Your task to perform on an android device: Search for bose quietcomfort 35 on target, select the first entry, add it to the cart, then select checkout. Image 0: 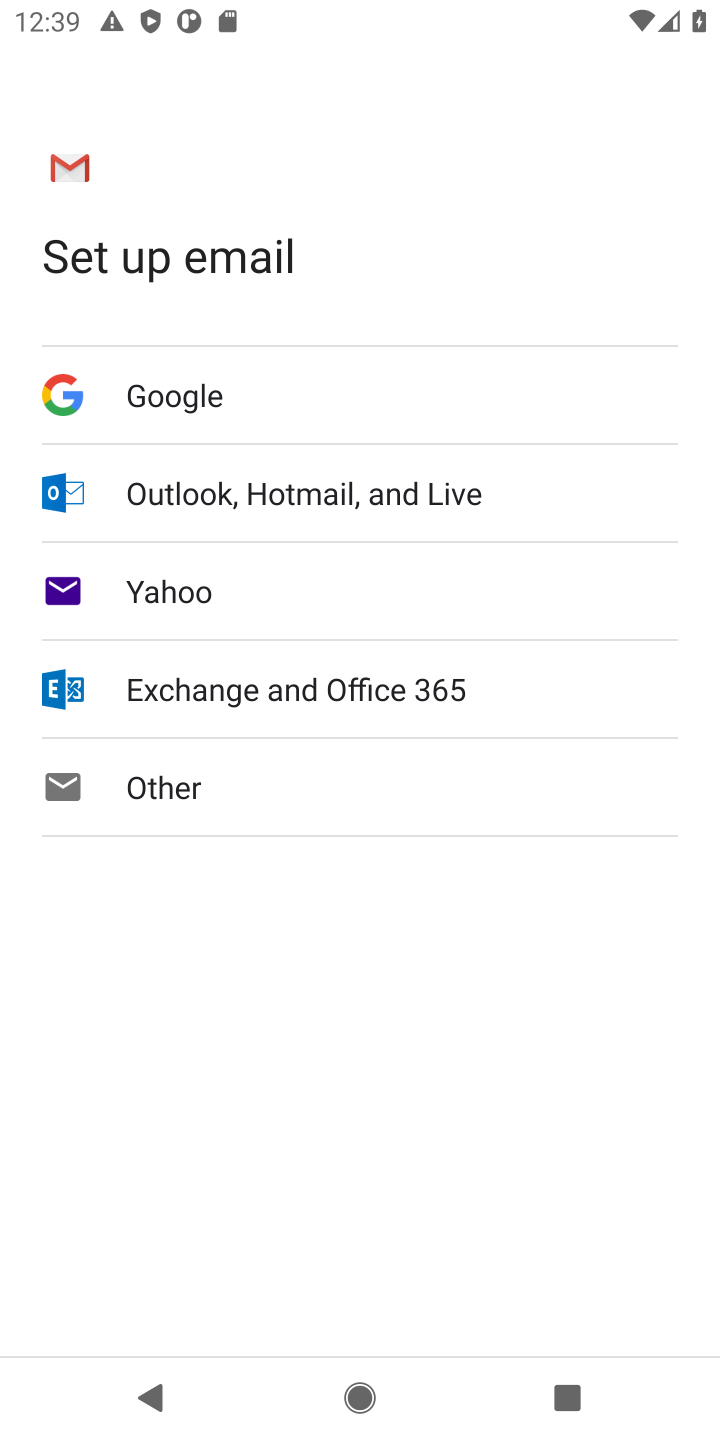
Step 0: press home button
Your task to perform on an android device: Search for bose quietcomfort 35 on target, select the first entry, add it to the cart, then select checkout. Image 1: 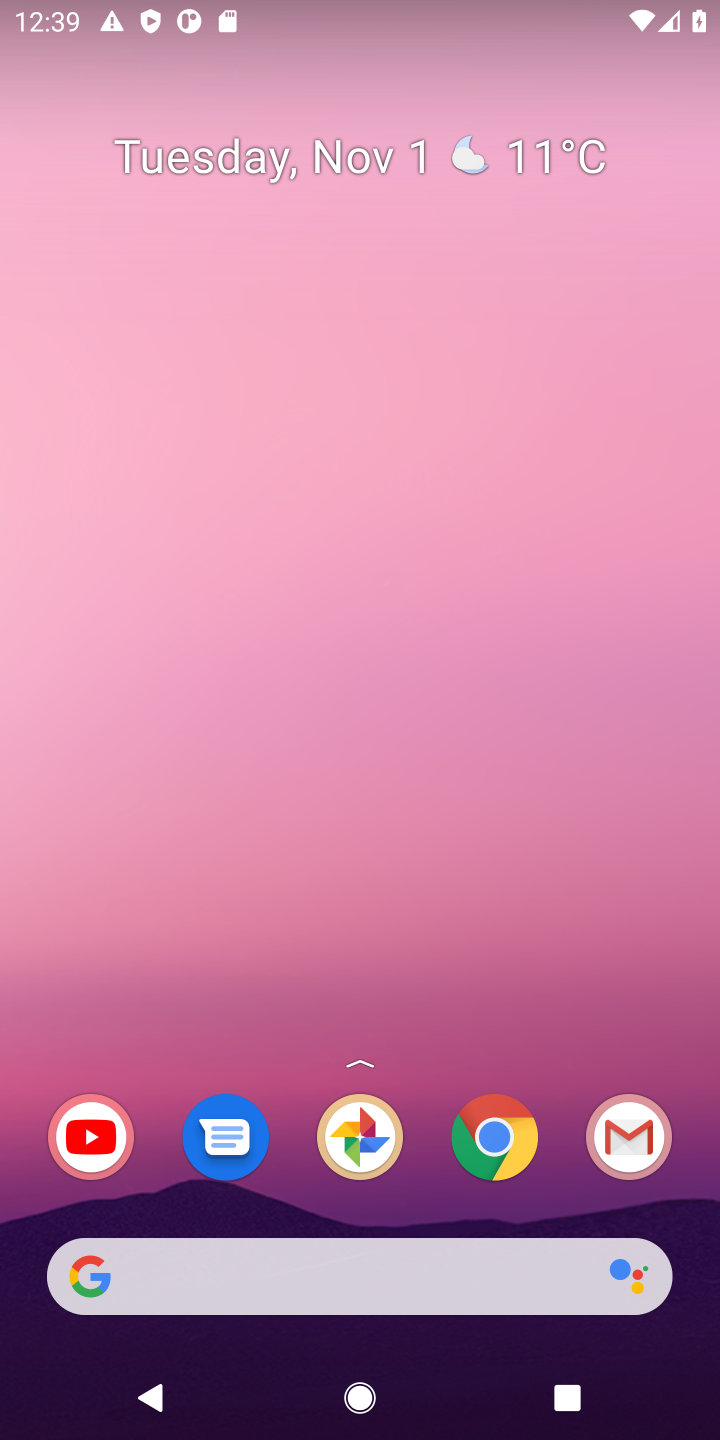
Step 1: click (502, 1138)
Your task to perform on an android device: Search for bose quietcomfort 35 on target, select the first entry, add it to the cart, then select checkout. Image 2: 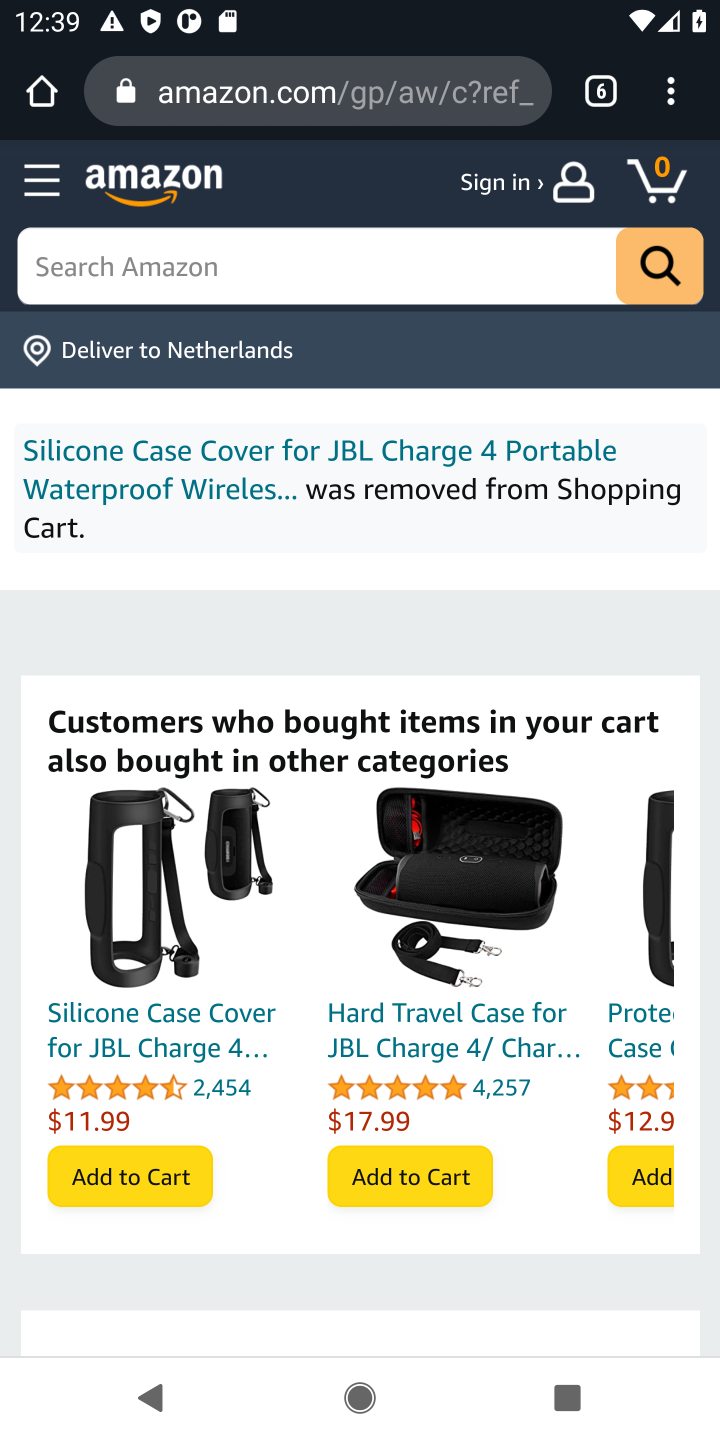
Step 2: click (600, 94)
Your task to perform on an android device: Search for bose quietcomfort 35 on target, select the first entry, add it to the cart, then select checkout. Image 3: 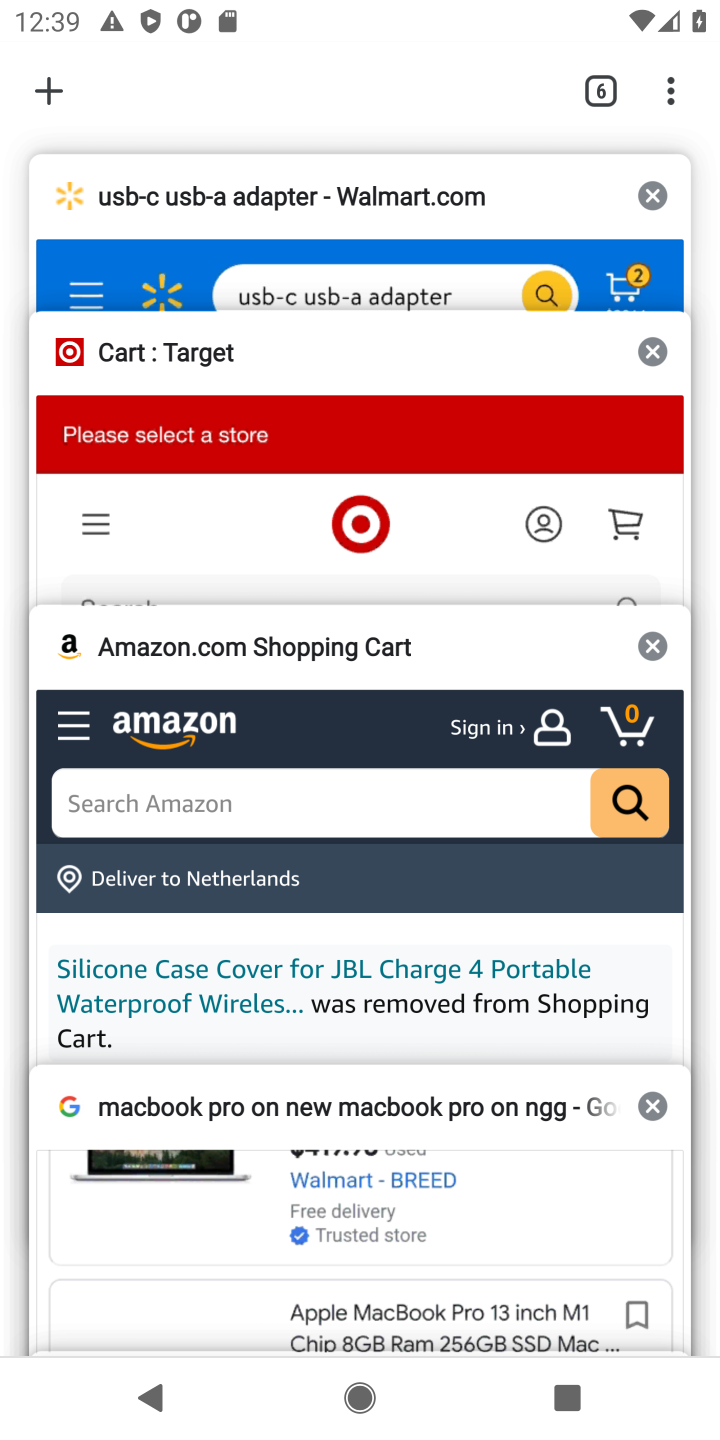
Step 3: click (270, 449)
Your task to perform on an android device: Search for bose quietcomfort 35 on target, select the first entry, add it to the cart, then select checkout. Image 4: 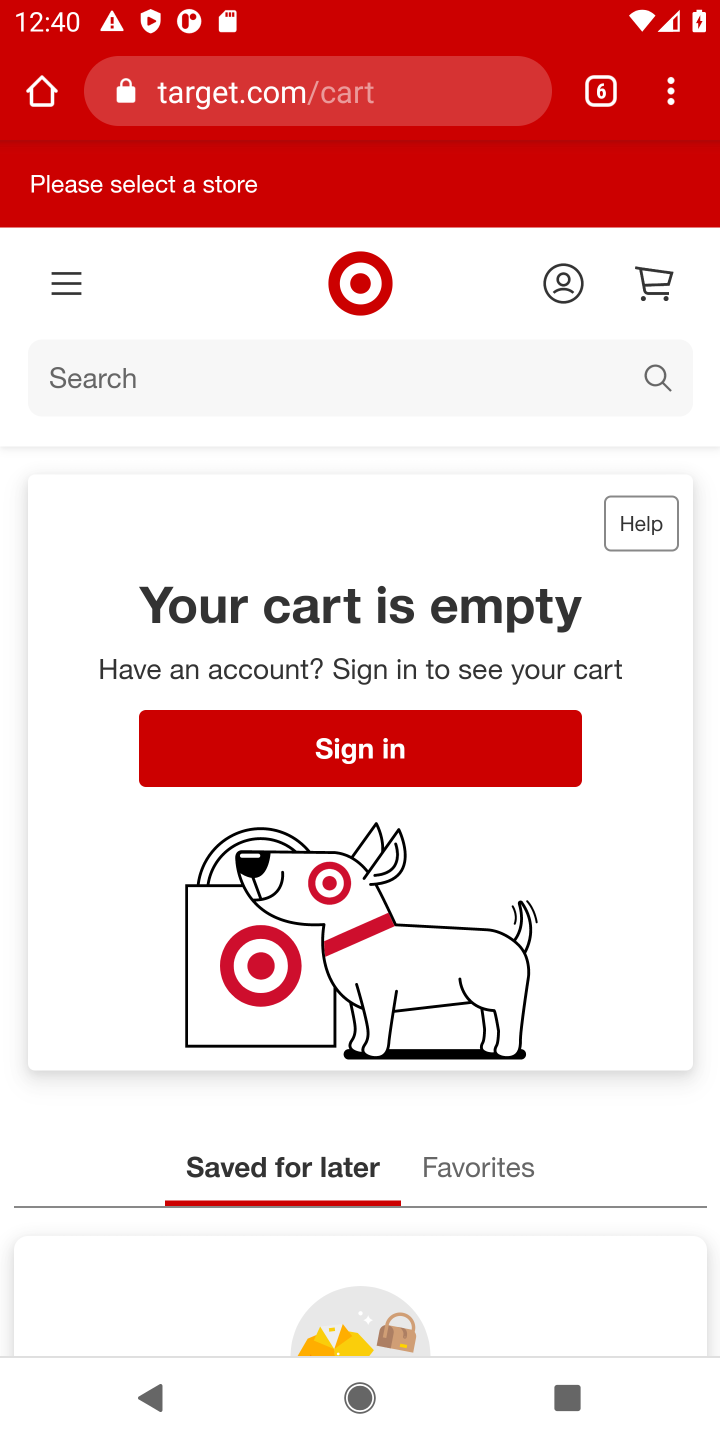
Step 4: click (120, 365)
Your task to perform on an android device: Search for bose quietcomfort 35 on target, select the first entry, add it to the cart, then select checkout. Image 5: 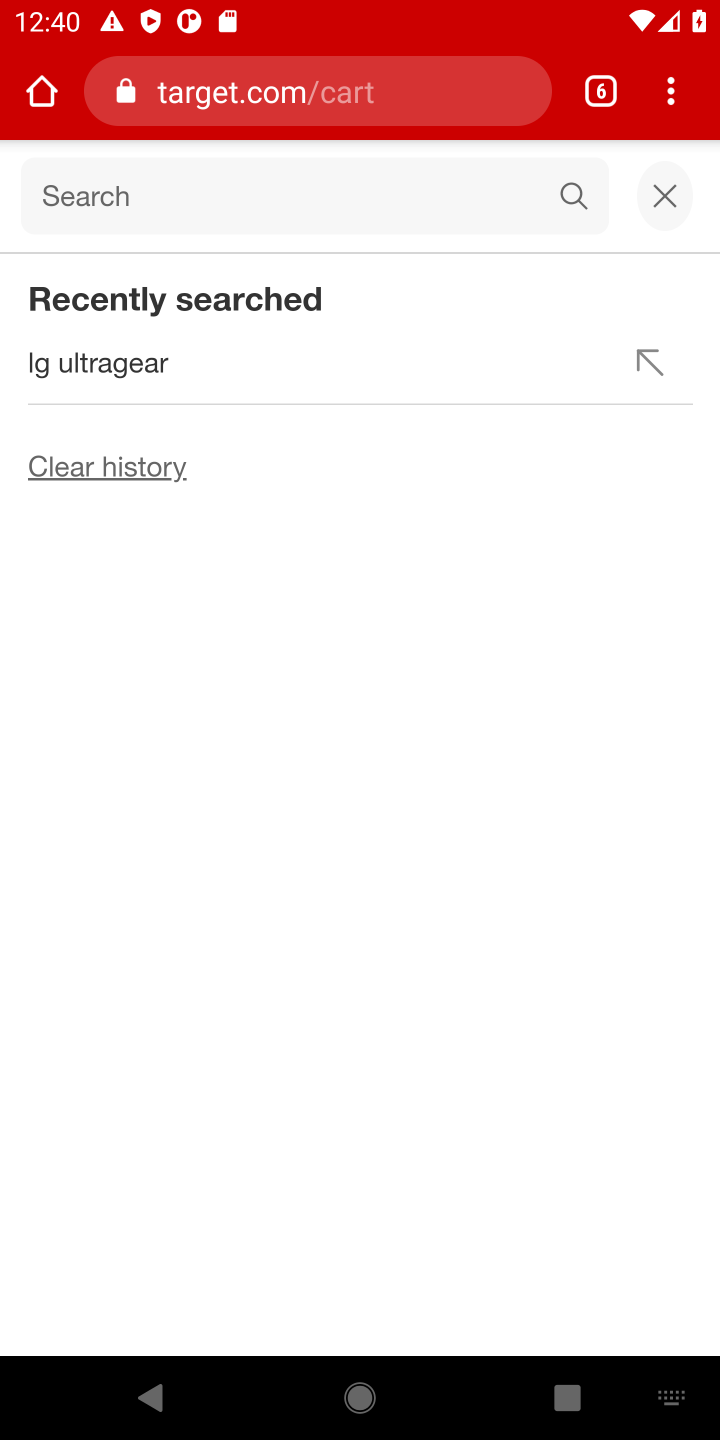
Step 5: type "bose quietcomfort 35 "
Your task to perform on an android device: Search for bose quietcomfort 35 on target, select the first entry, add it to the cart, then select checkout. Image 6: 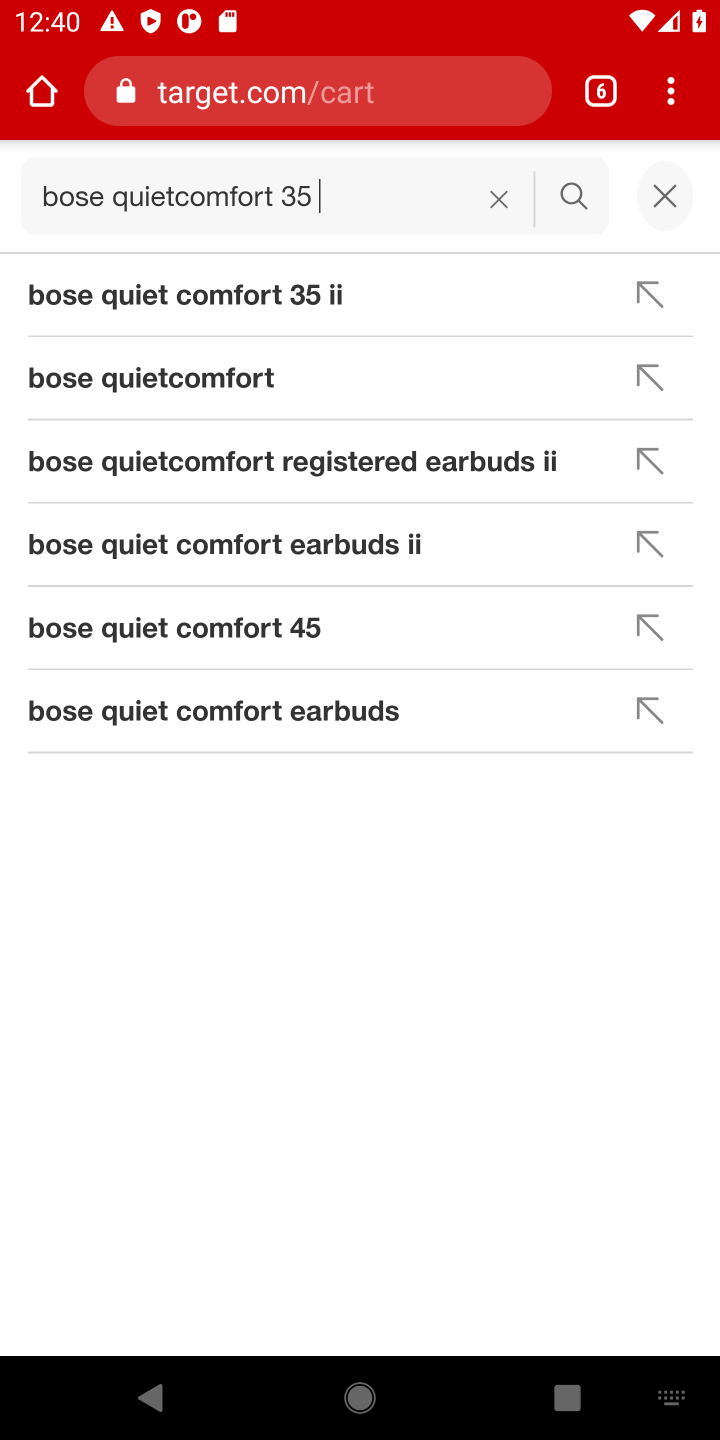
Step 6: click (176, 297)
Your task to perform on an android device: Search for bose quietcomfort 35 on target, select the first entry, add it to the cart, then select checkout. Image 7: 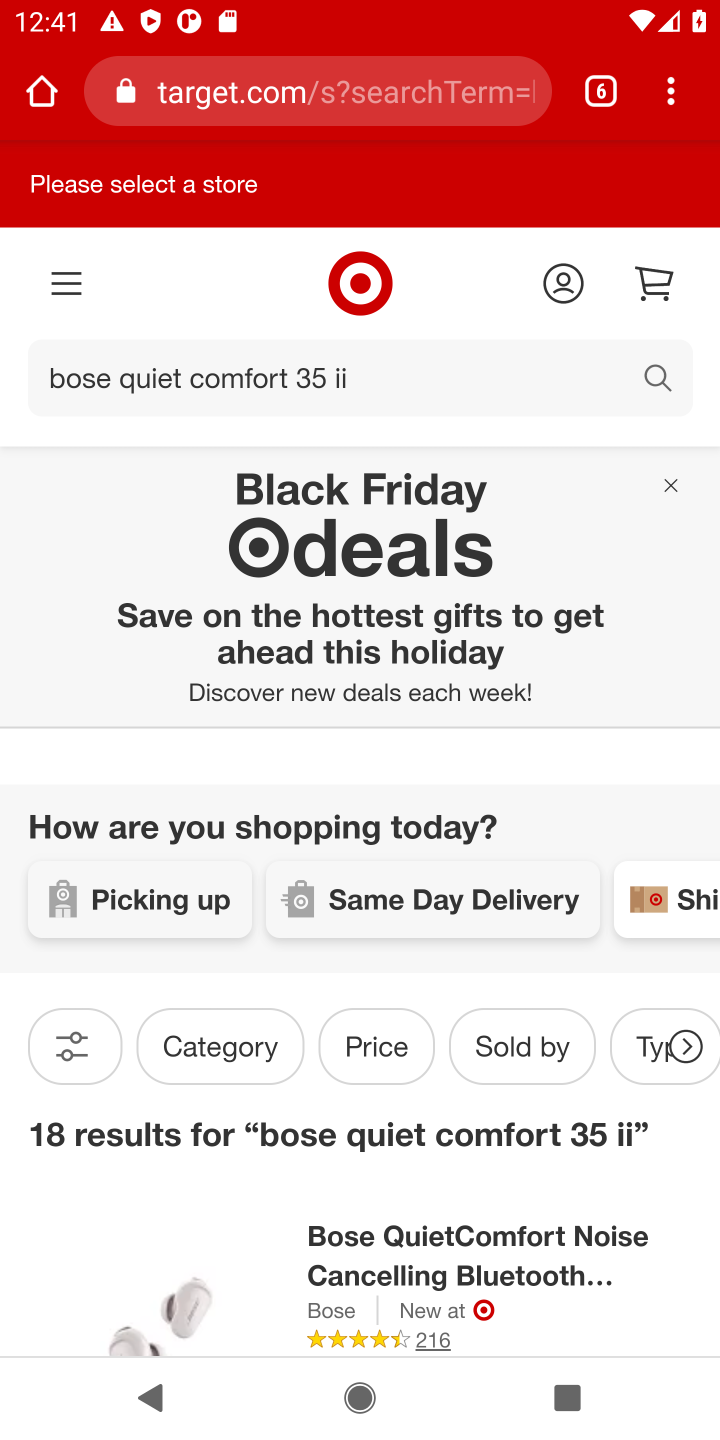
Step 7: drag from (250, 1154) to (489, 234)
Your task to perform on an android device: Search for bose quietcomfort 35 on target, select the first entry, add it to the cart, then select checkout. Image 8: 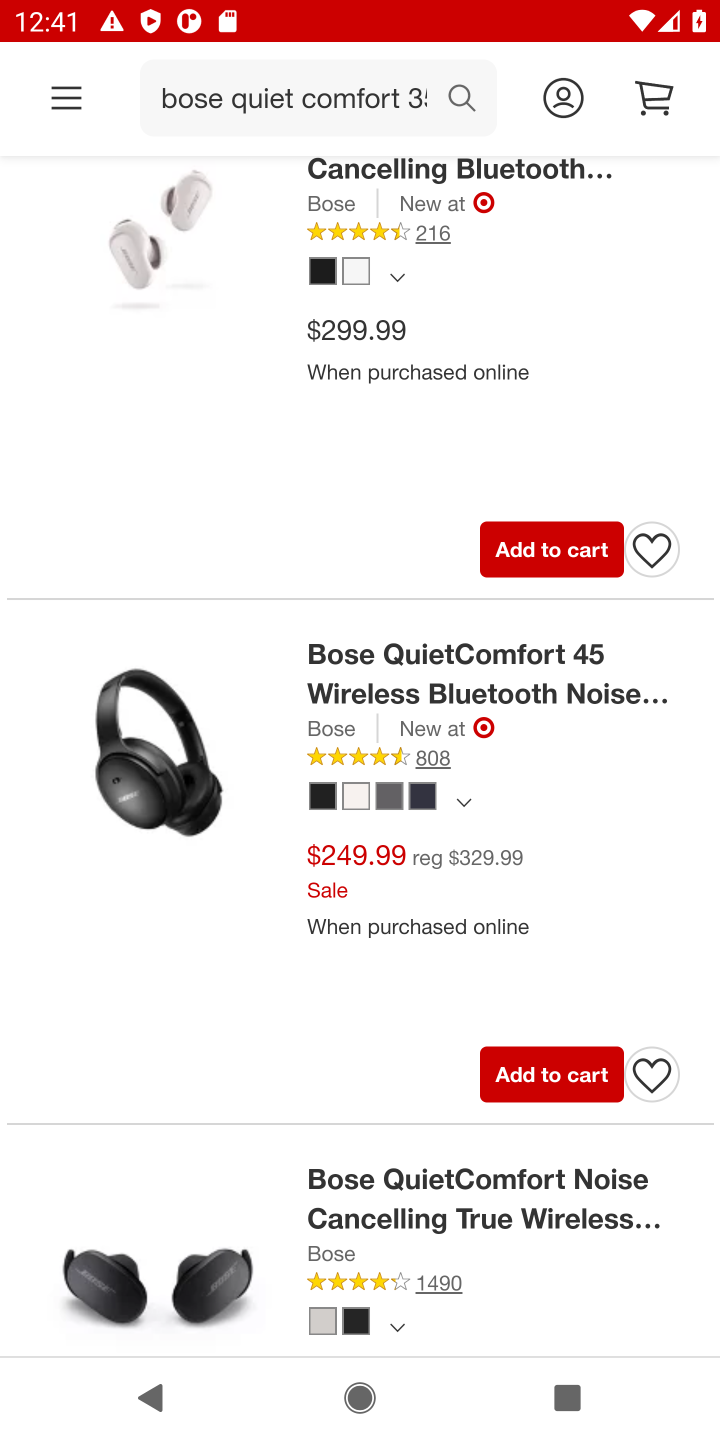
Step 8: click (555, 746)
Your task to perform on an android device: Search for bose quietcomfort 35 on target, select the first entry, add it to the cart, then select checkout. Image 9: 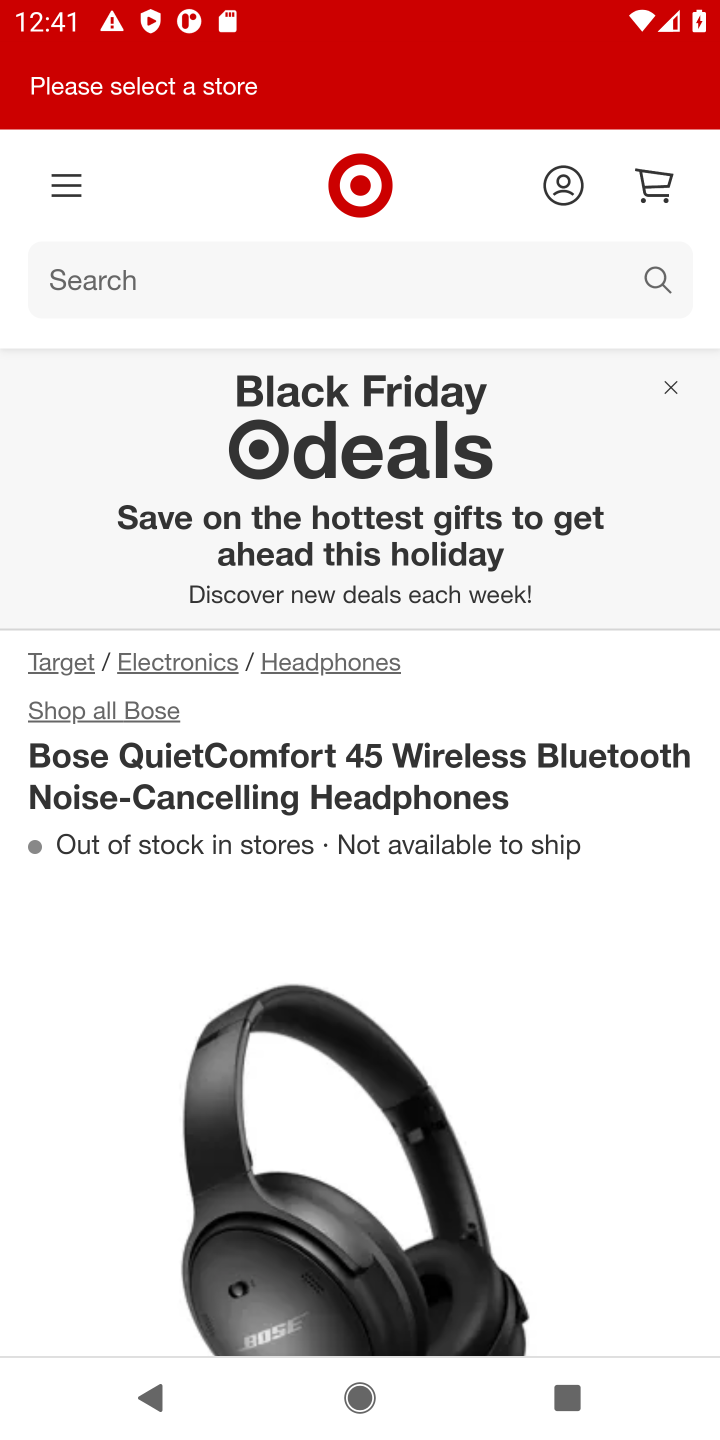
Step 9: drag from (535, 872) to (592, 658)
Your task to perform on an android device: Search for bose quietcomfort 35 on target, select the first entry, add it to the cart, then select checkout. Image 10: 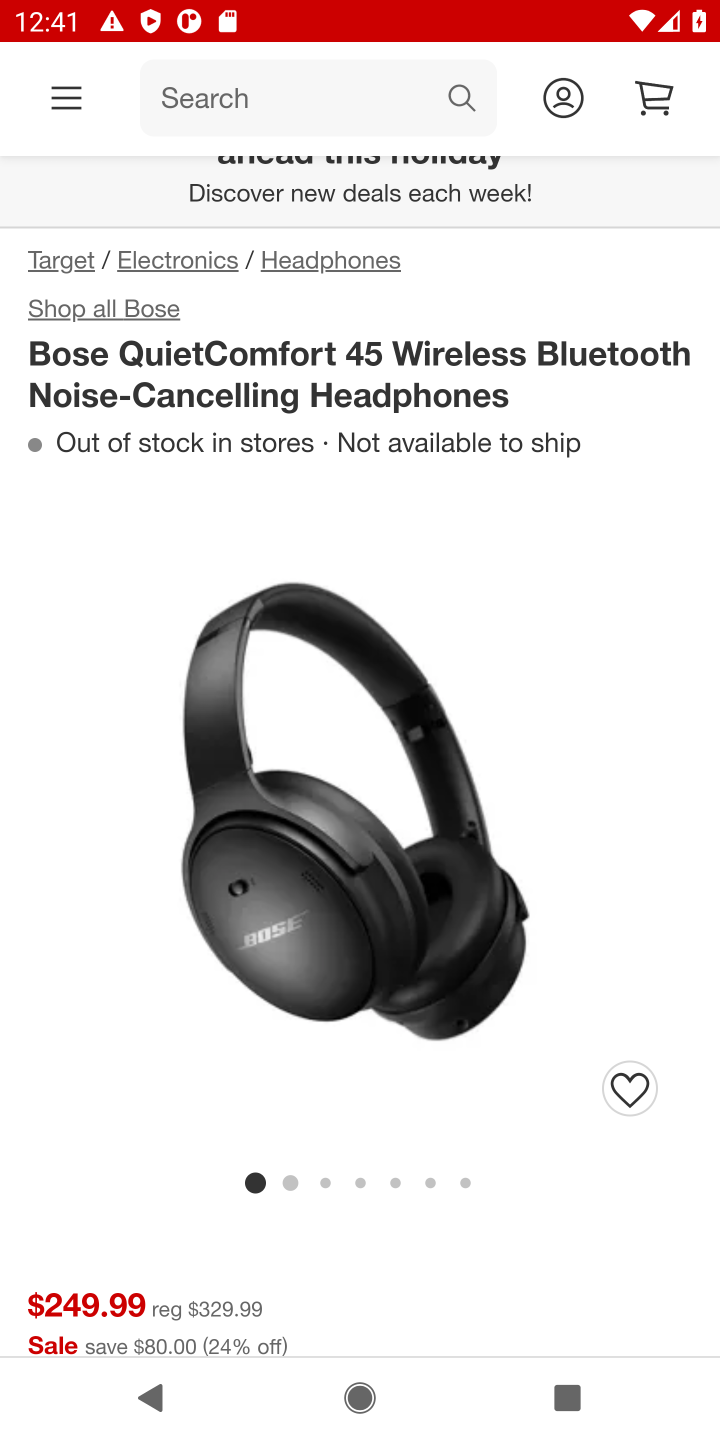
Step 10: drag from (473, 1145) to (507, 921)
Your task to perform on an android device: Search for bose quietcomfort 35 on target, select the first entry, add it to the cart, then select checkout. Image 11: 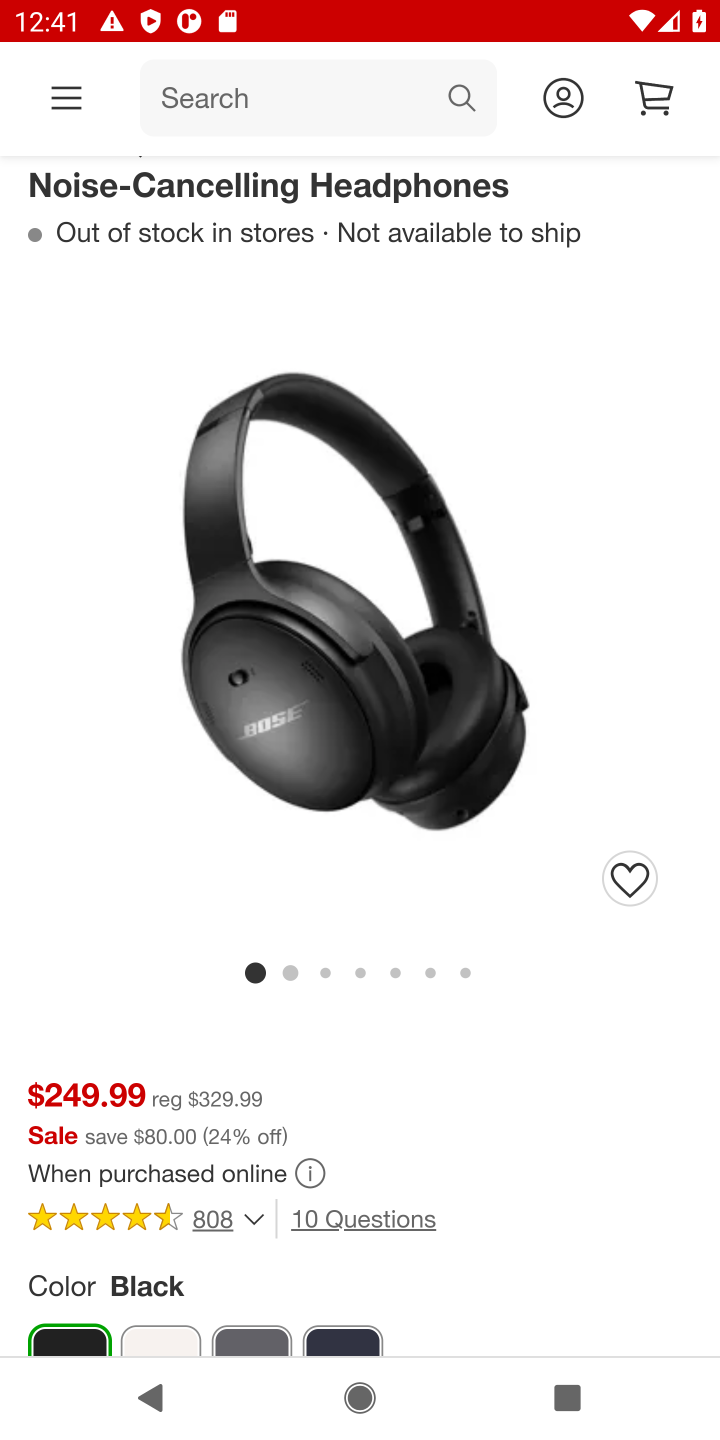
Step 11: drag from (457, 1070) to (589, 679)
Your task to perform on an android device: Search for bose quietcomfort 35 on target, select the first entry, add it to the cart, then select checkout. Image 12: 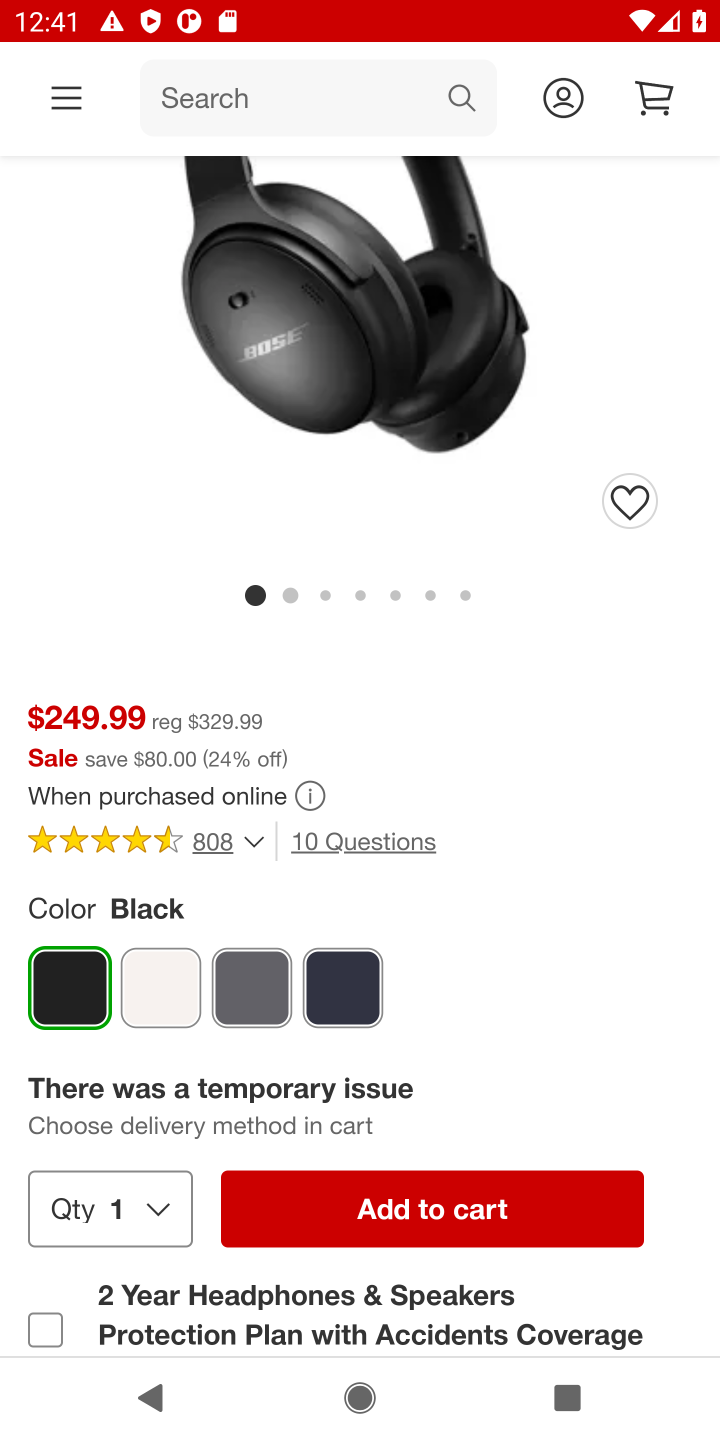
Step 12: click (386, 1227)
Your task to perform on an android device: Search for bose quietcomfort 35 on target, select the first entry, add it to the cart, then select checkout. Image 13: 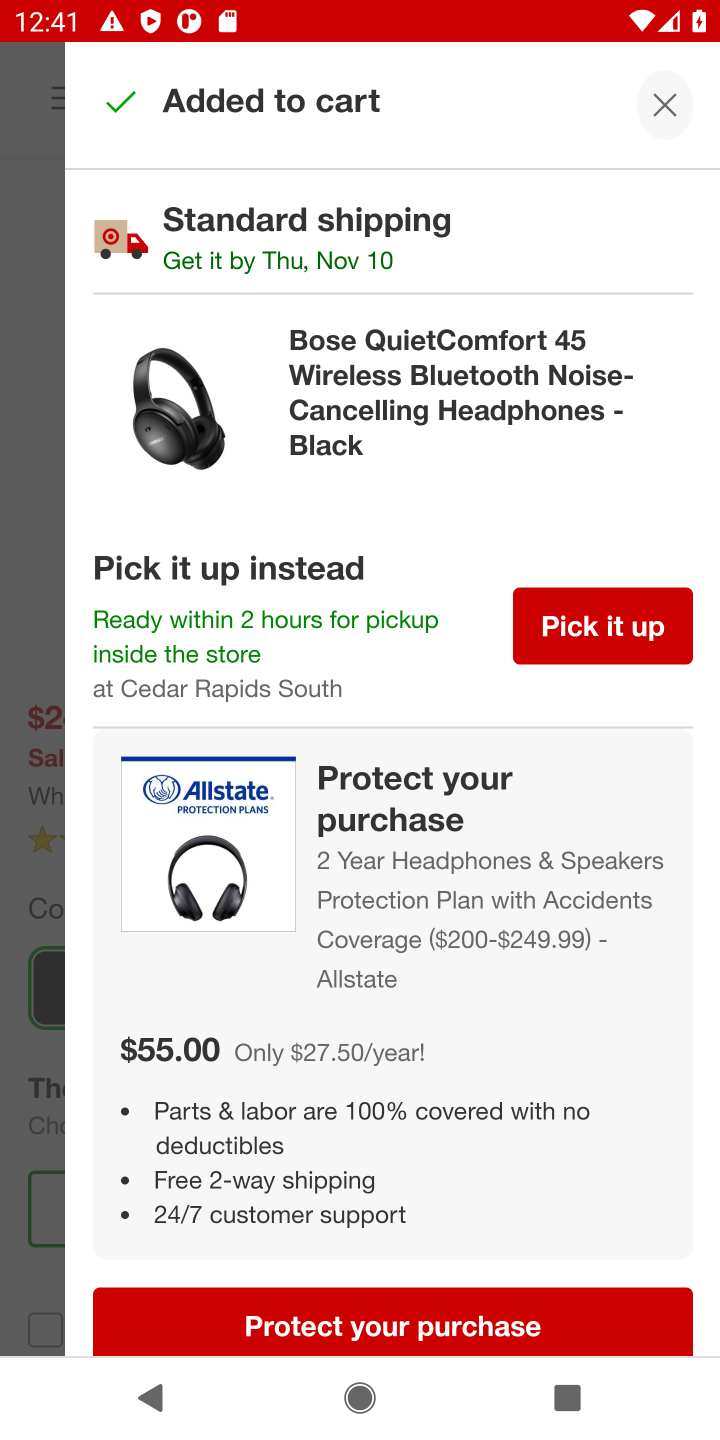
Step 13: task complete